Your task to perform on an android device: Open Google Chrome and click the shortcut for Amazon.com Image 0: 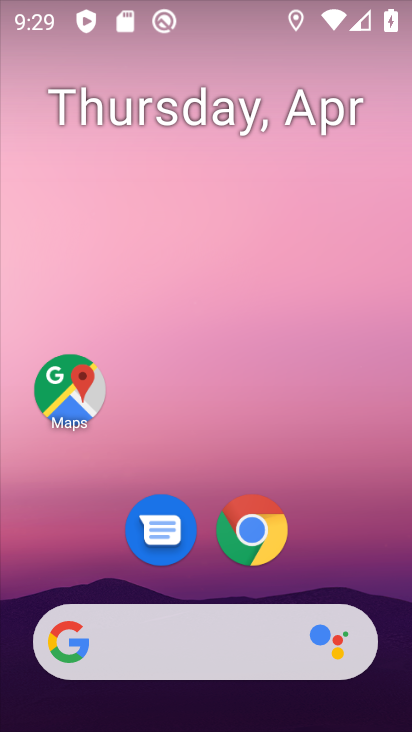
Step 0: drag from (377, 592) to (271, 56)
Your task to perform on an android device: Open Google Chrome and click the shortcut for Amazon.com Image 1: 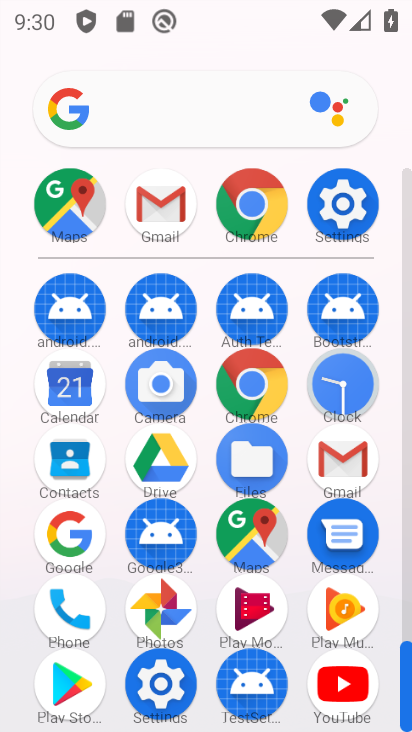
Step 1: click (257, 188)
Your task to perform on an android device: Open Google Chrome and click the shortcut for Amazon.com Image 2: 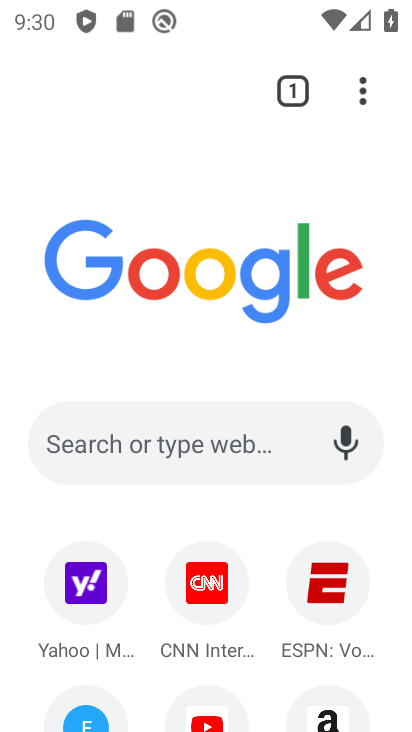
Step 2: click (323, 712)
Your task to perform on an android device: Open Google Chrome and click the shortcut for Amazon.com Image 3: 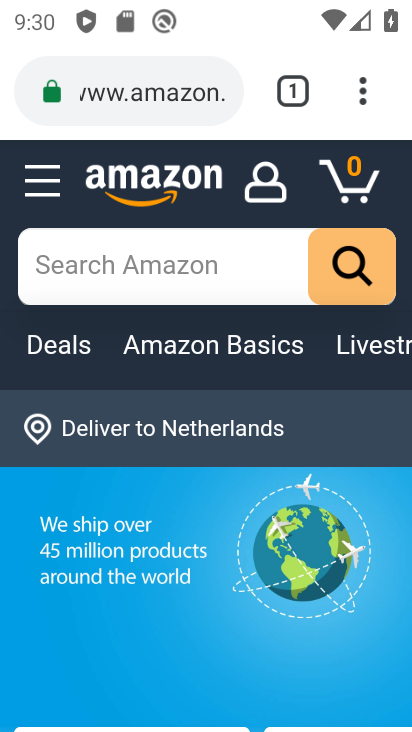
Step 3: task complete